Your task to perform on an android device: Go to Google Image 0: 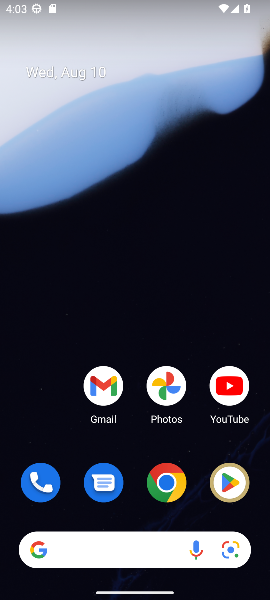
Step 0: drag from (62, 429) to (130, 24)
Your task to perform on an android device: Go to Google Image 1: 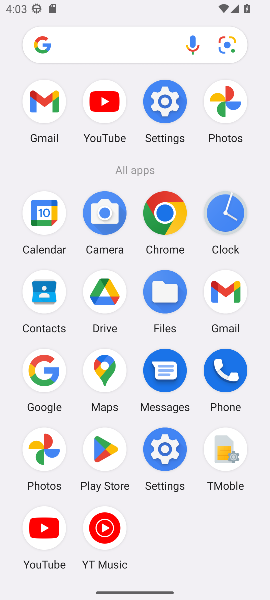
Step 1: click (46, 365)
Your task to perform on an android device: Go to Google Image 2: 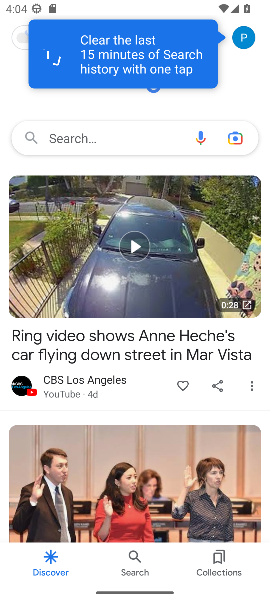
Step 2: click (142, 247)
Your task to perform on an android device: Go to Google Image 3: 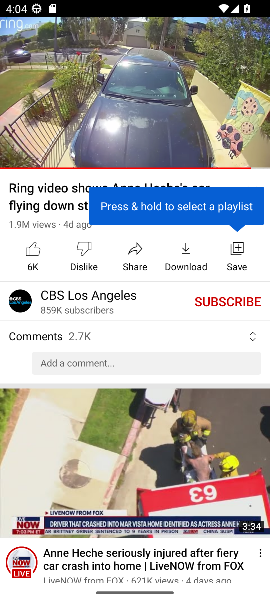
Step 3: task complete